Your task to perform on an android device: toggle notifications settings in the gmail app Image 0: 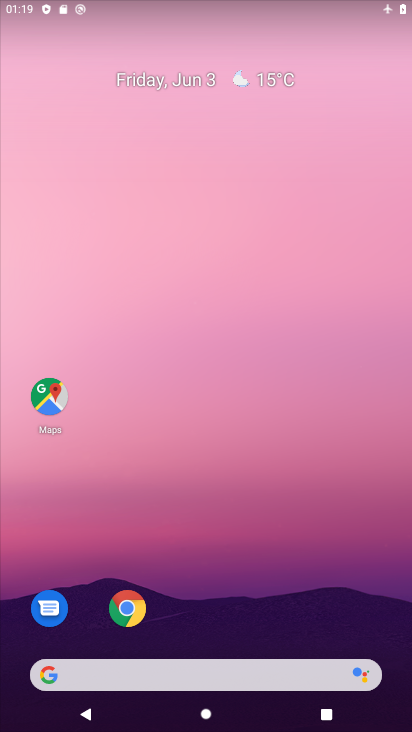
Step 0: drag from (285, 560) to (179, 176)
Your task to perform on an android device: toggle notifications settings in the gmail app Image 1: 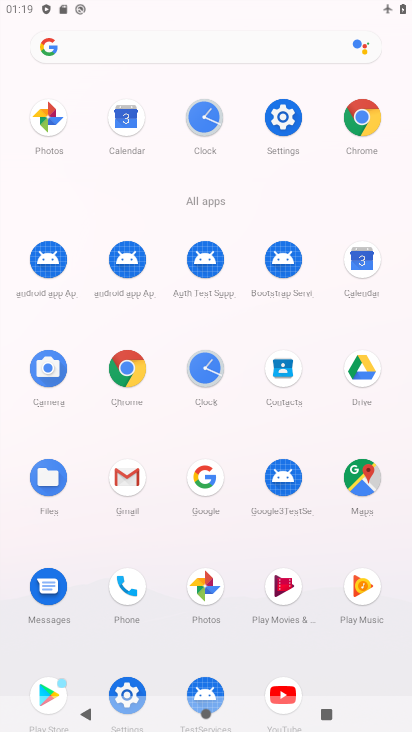
Step 1: click (124, 470)
Your task to perform on an android device: toggle notifications settings in the gmail app Image 2: 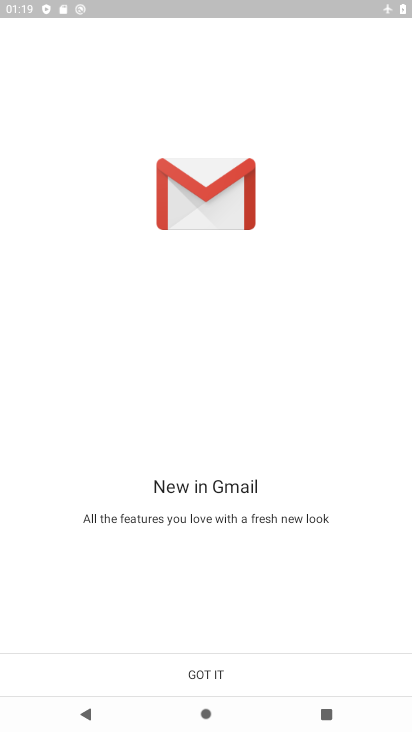
Step 2: click (228, 675)
Your task to perform on an android device: toggle notifications settings in the gmail app Image 3: 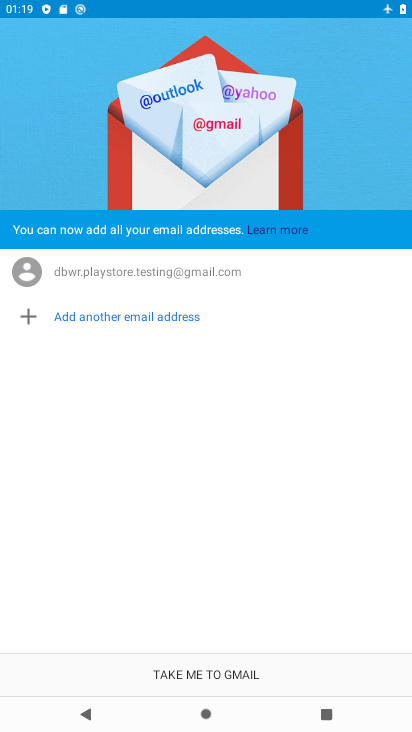
Step 3: click (196, 681)
Your task to perform on an android device: toggle notifications settings in the gmail app Image 4: 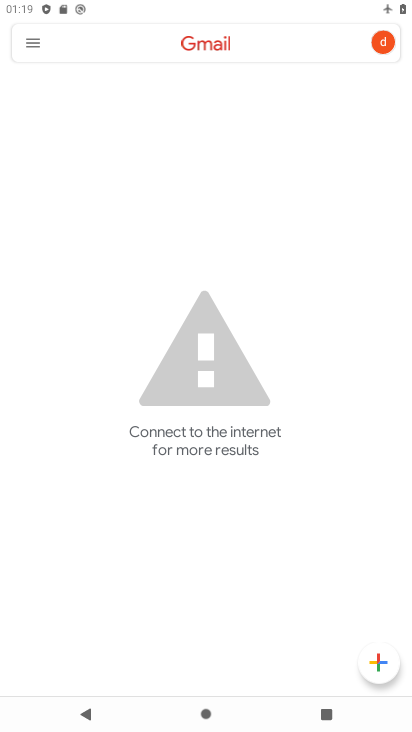
Step 4: click (34, 37)
Your task to perform on an android device: toggle notifications settings in the gmail app Image 5: 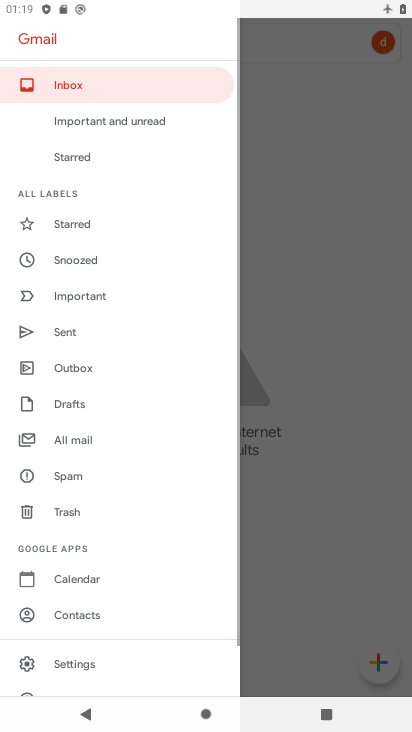
Step 5: drag from (124, 653) to (142, 342)
Your task to perform on an android device: toggle notifications settings in the gmail app Image 6: 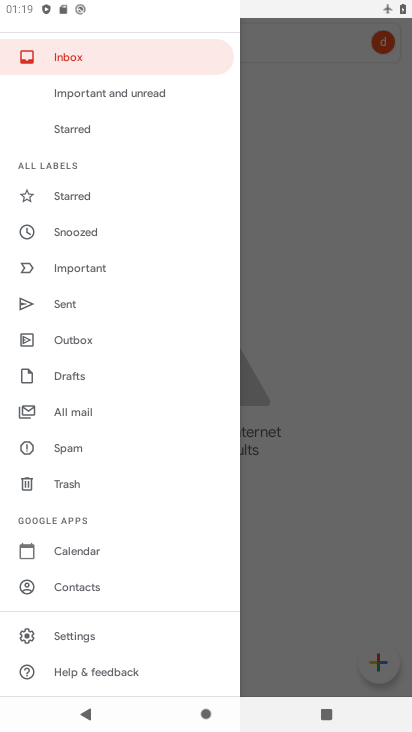
Step 6: click (95, 636)
Your task to perform on an android device: toggle notifications settings in the gmail app Image 7: 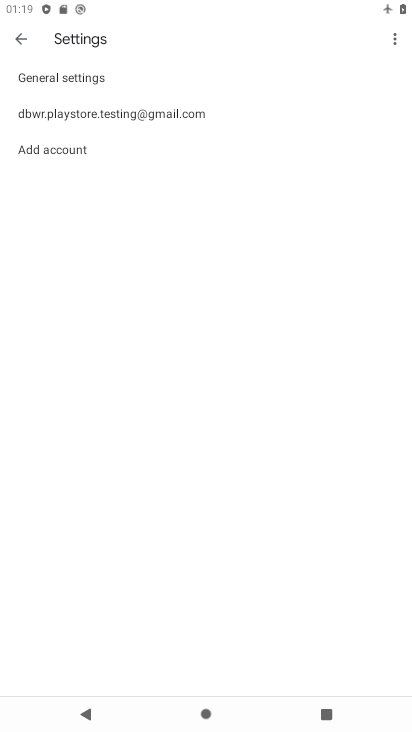
Step 7: click (124, 108)
Your task to perform on an android device: toggle notifications settings in the gmail app Image 8: 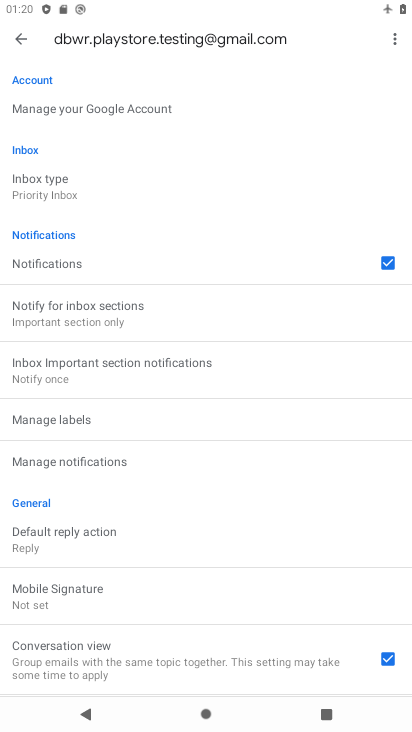
Step 8: click (104, 459)
Your task to perform on an android device: toggle notifications settings in the gmail app Image 9: 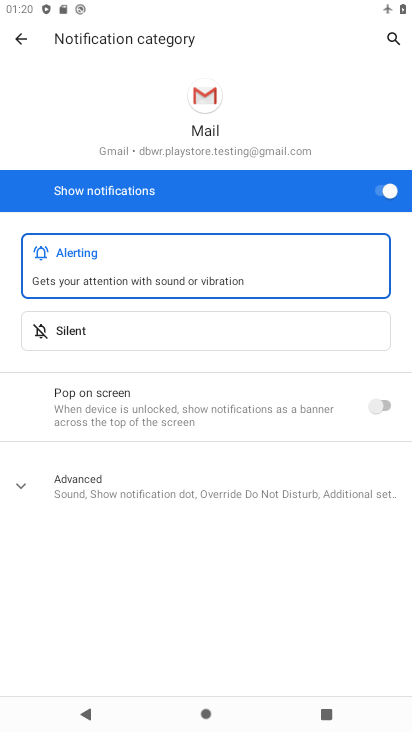
Step 9: task complete